Your task to perform on an android device: Go to Wikipedia Image 0: 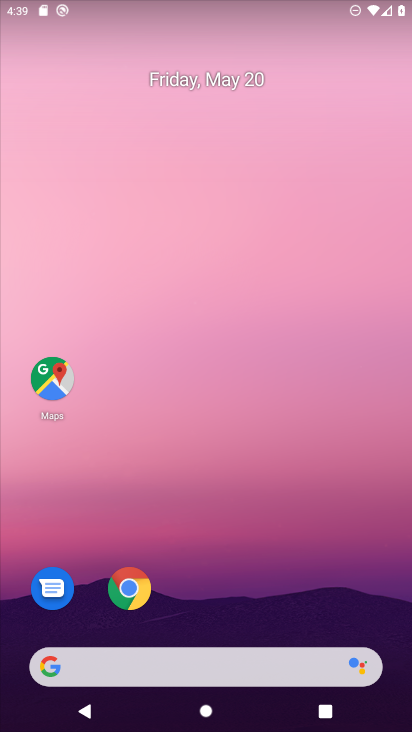
Step 0: drag from (188, 506) to (204, 54)
Your task to perform on an android device: Go to Wikipedia Image 1: 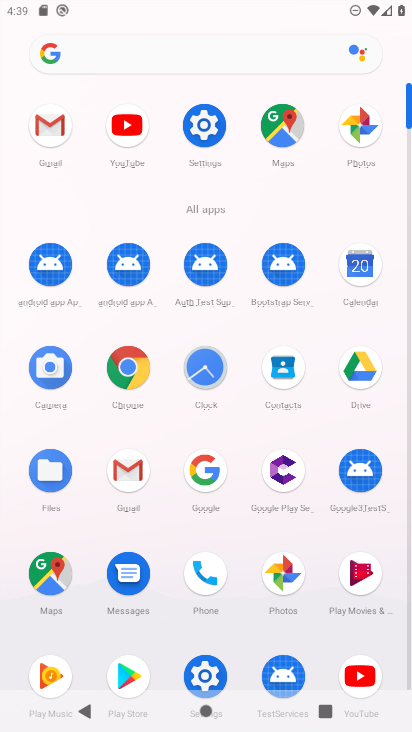
Step 1: click (130, 372)
Your task to perform on an android device: Go to Wikipedia Image 2: 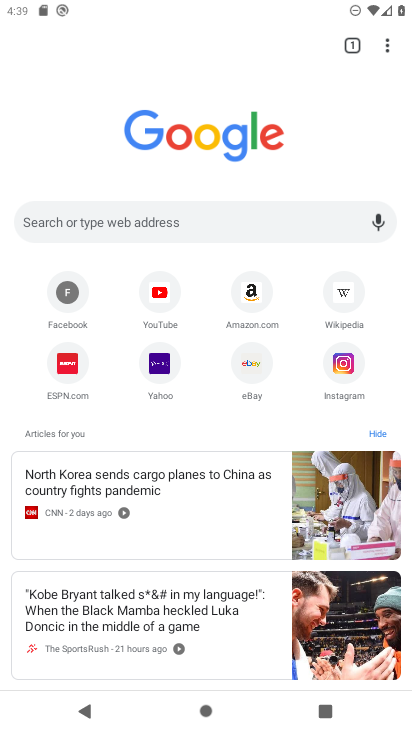
Step 2: click (351, 302)
Your task to perform on an android device: Go to Wikipedia Image 3: 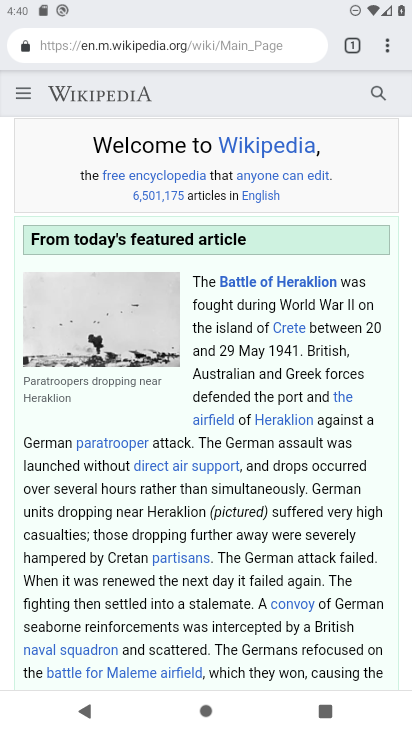
Step 3: task complete